Your task to perform on an android device: Go to Yahoo.com Image 0: 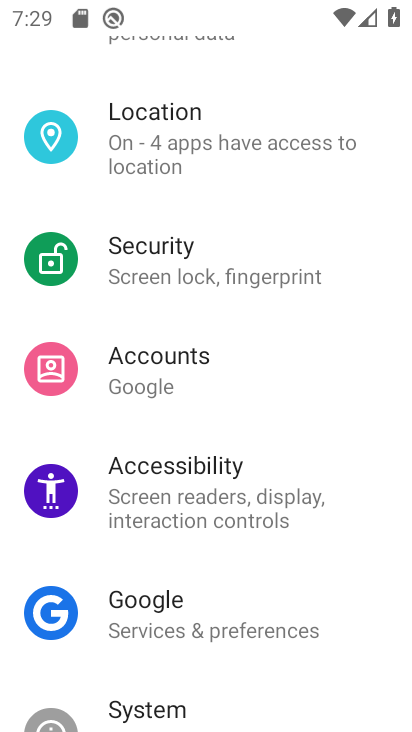
Step 0: press home button
Your task to perform on an android device: Go to Yahoo.com Image 1: 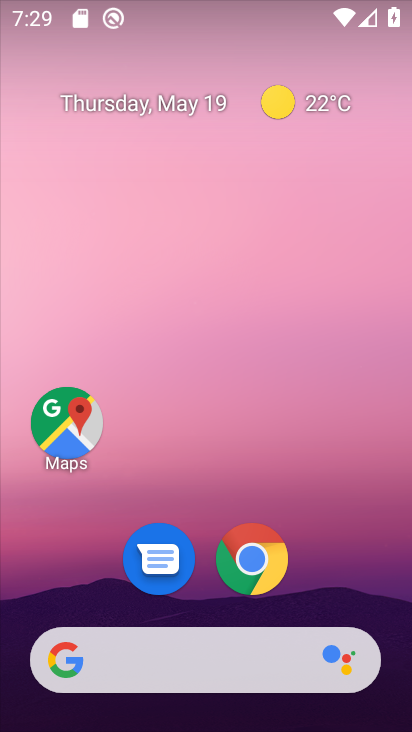
Step 1: click (255, 554)
Your task to perform on an android device: Go to Yahoo.com Image 2: 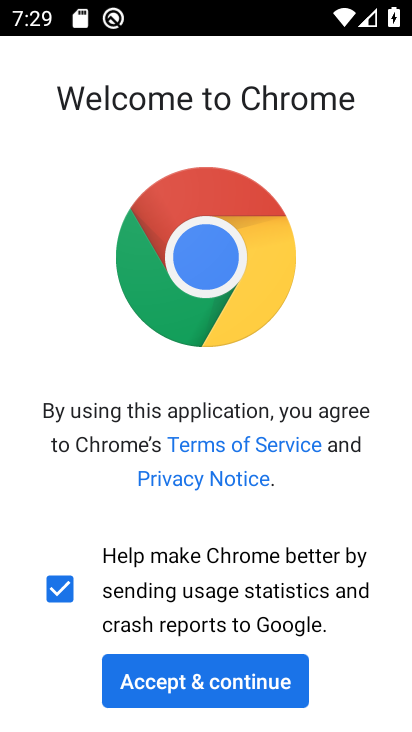
Step 2: click (213, 685)
Your task to perform on an android device: Go to Yahoo.com Image 3: 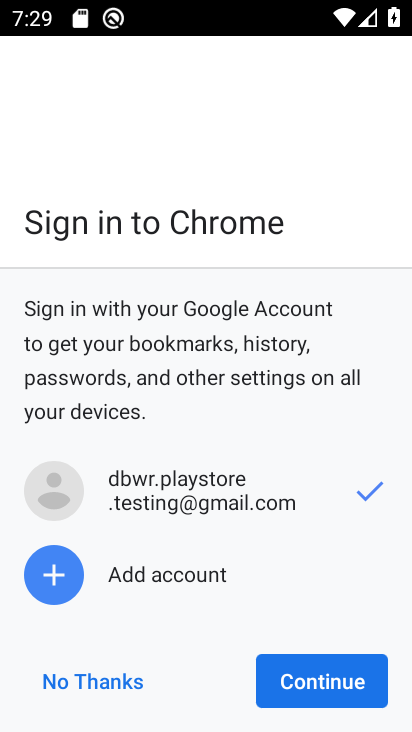
Step 3: click (311, 663)
Your task to perform on an android device: Go to Yahoo.com Image 4: 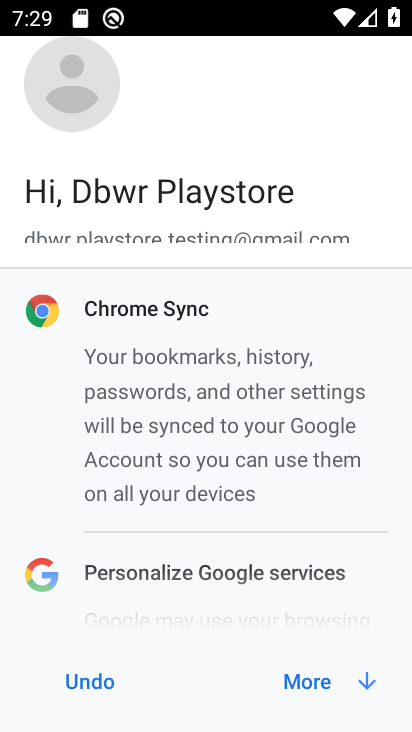
Step 4: click (306, 674)
Your task to perform on an android device: Go to Yahoo.com Image 5: 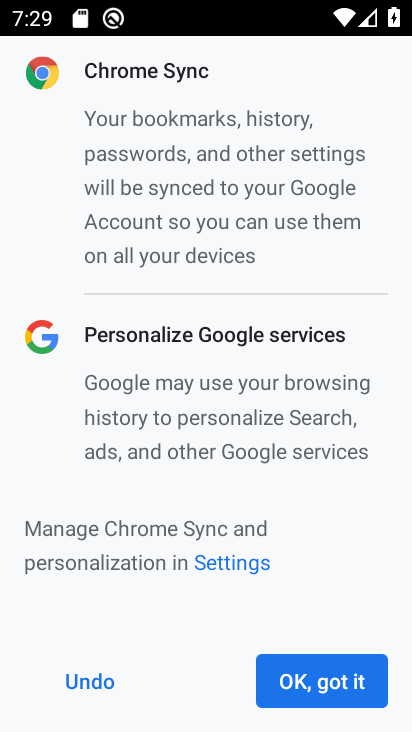
Step 5: click (303, 683)
Your task to perform on an android device: Go to Yahoo.com Image 6: 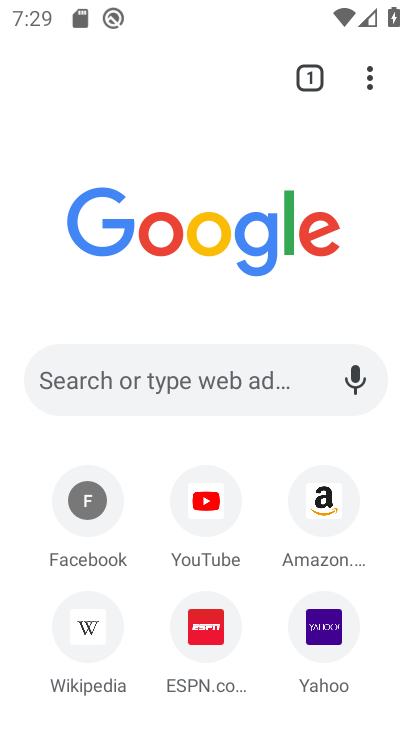
Step 6: click (322, 632)
Your task to perform on an android device: Go to Yahoo.com Image 7: 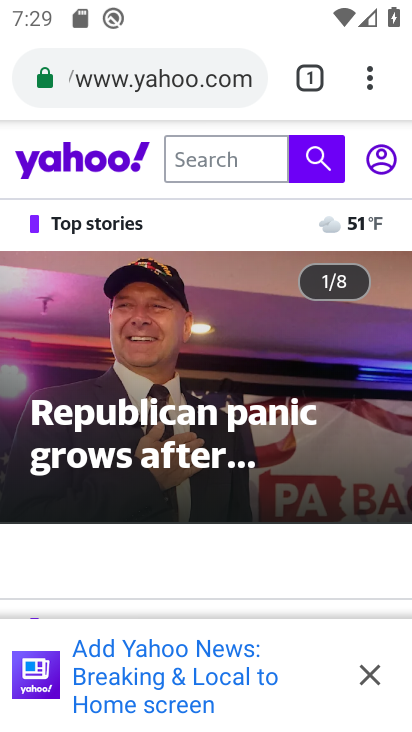
Step 7: task complete